Your task to perform on an android device: add a contact in the contacts app Image 0: 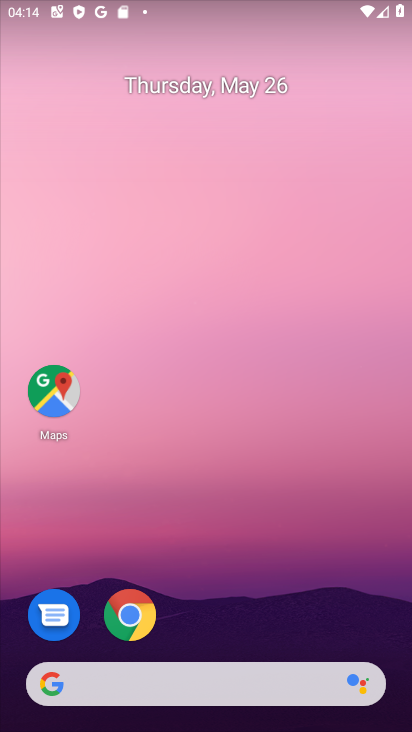
Step 0: click (267, 131)
Your task to perform on an android device: add a contact in the contacts app Image 1: 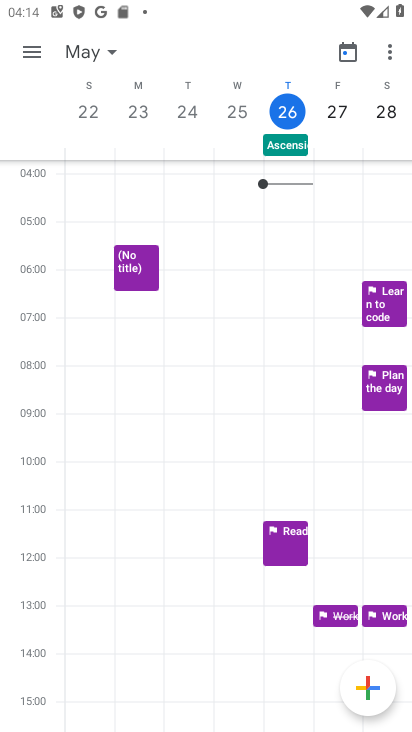
Step 1: drag from (229, 594) to (221, 164)
Your task to perform on an android device: add a contact in the contacts app Image 2: 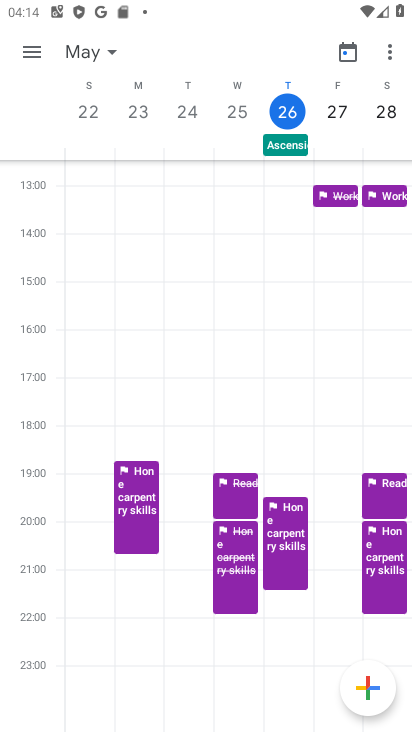
Step 2: press home button
Your task to perform on an android device: add a contact in the contacts app Image 3: 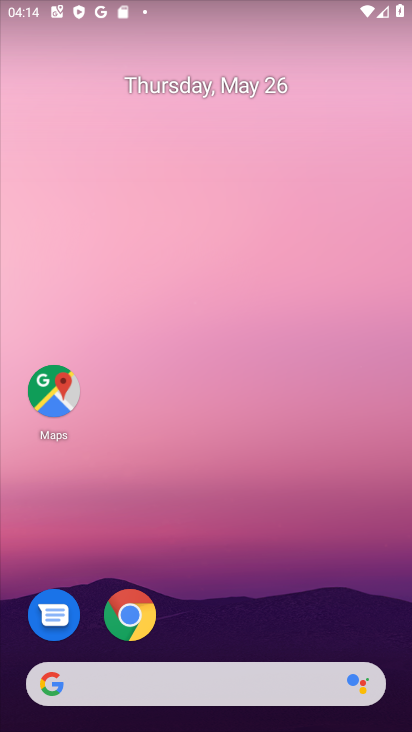
Step 3: drag from (224, 605) to (228, 236)
Your task to perform on an android device: add a contact in the contacts app Image 4: 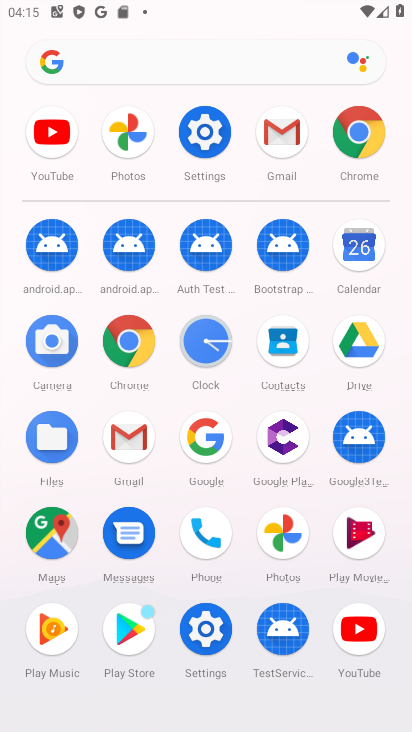
Step 4: click (287, 355)
Your task to perform on an android device: add a contact in the contacts app Image 5: 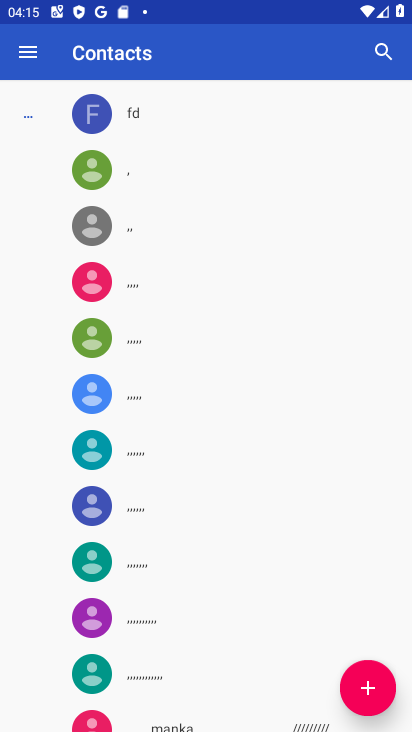
Step 5: click (355, 697)
Your task to perform on an android device: add a contact in the contacts app Image 6: 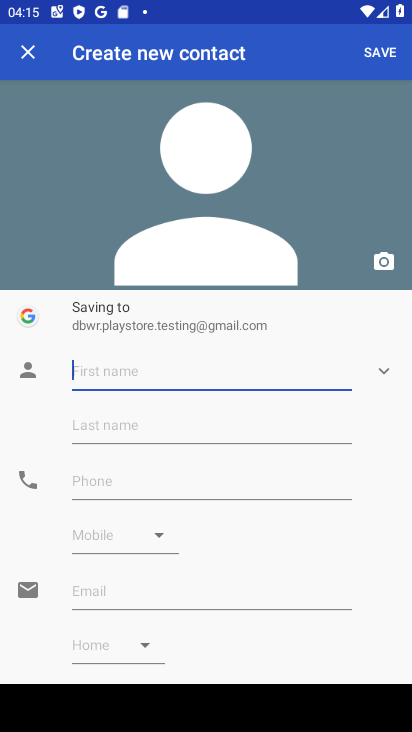
Step 6: click (140, 365)
Your task to perform on an android device: add a contact in the contacts app Image 7: 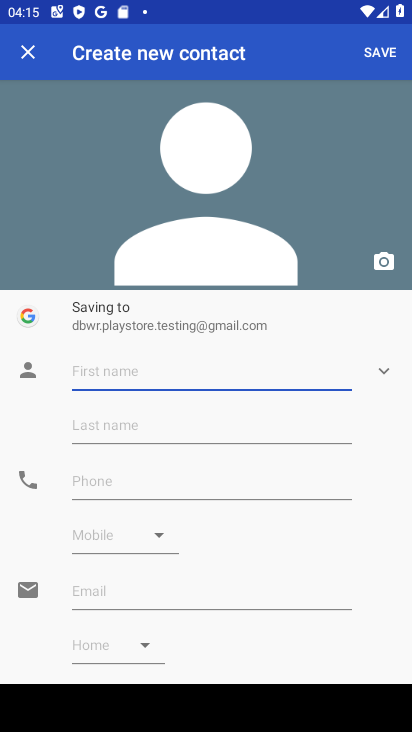
Step 7: type "Naman"
Your task to perform on an android device: add a contact in the contacts app Image 8: 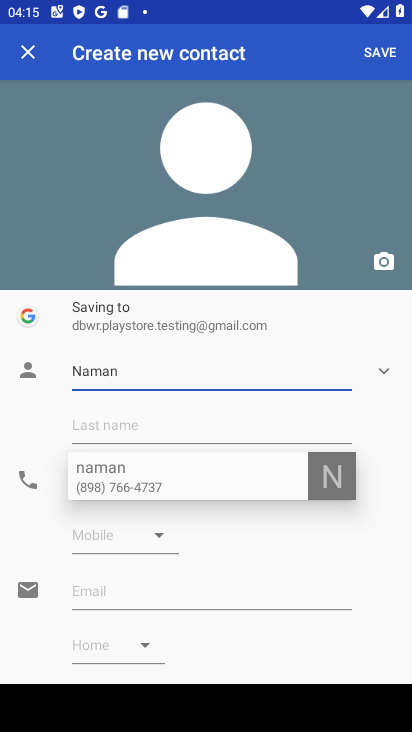
Step 8: click (206, 434)
Your task to perform on an android device: add a contact in the contacts app Image 9: 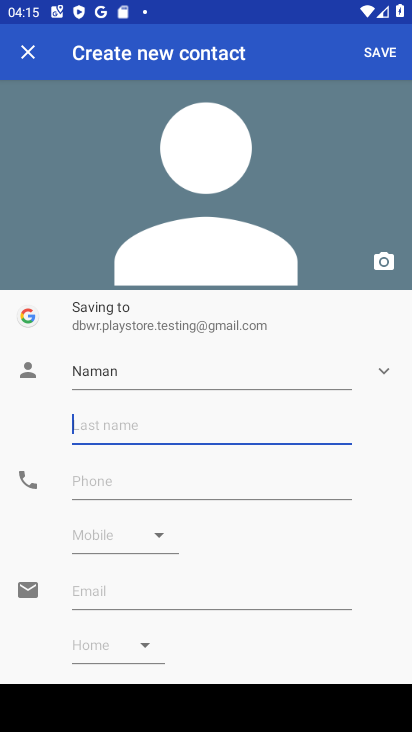
Step 9: click (185, 424)
Your task to perform on an android device: add a contact in the contacts app Image 10: 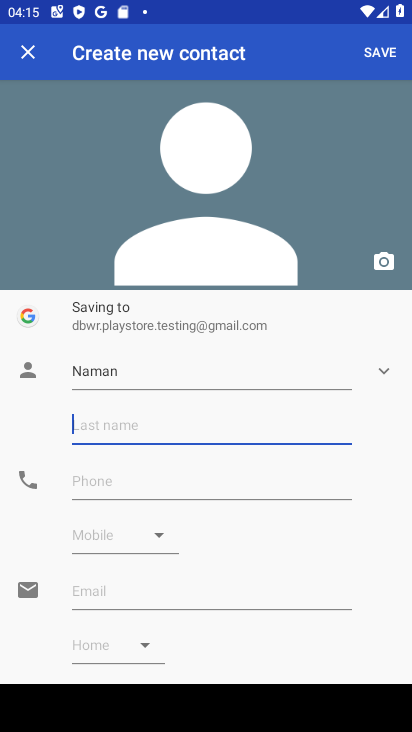
Step 10: type "kapur"
Your task to perform on an android device: add a contact in the contacts app Image 11: 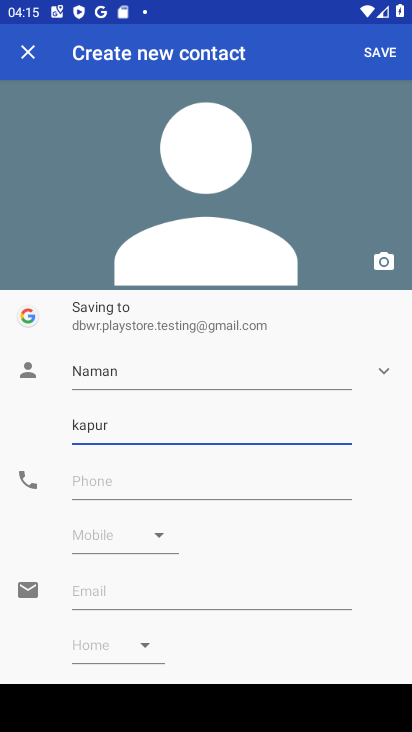
Step 11: click (244, 483)
Your task to perform on an android device: add a contact in the contacts app Image 12: 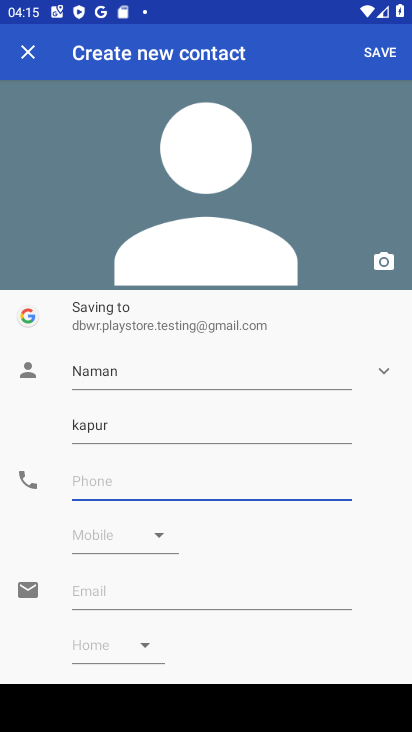
Step 12: type "7878789090"
Your task to perform on an android device: add a contact in the contacts app Image 13: 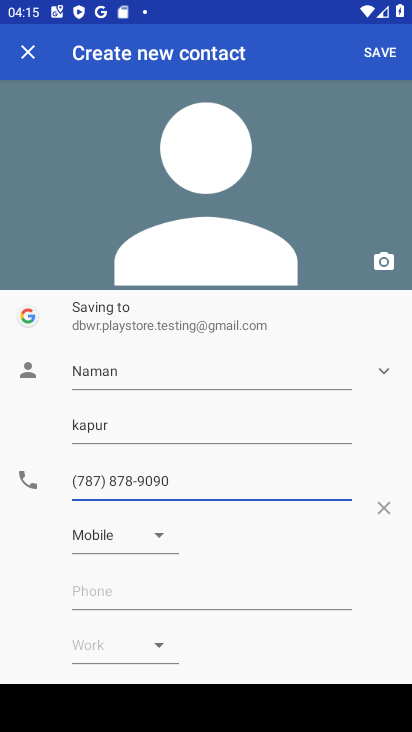
Step 13: click (374, 48)
Your task to perform on an android device: add a contact in the contacts app Image 14: 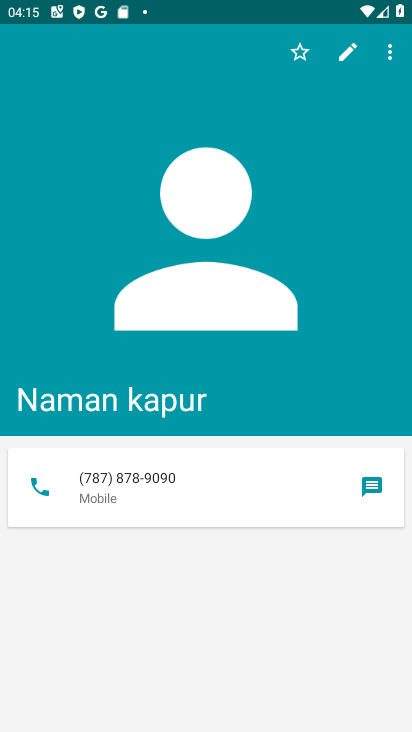
Step 14: task complete